Your task to perform on an android device: check battery use Image 0: 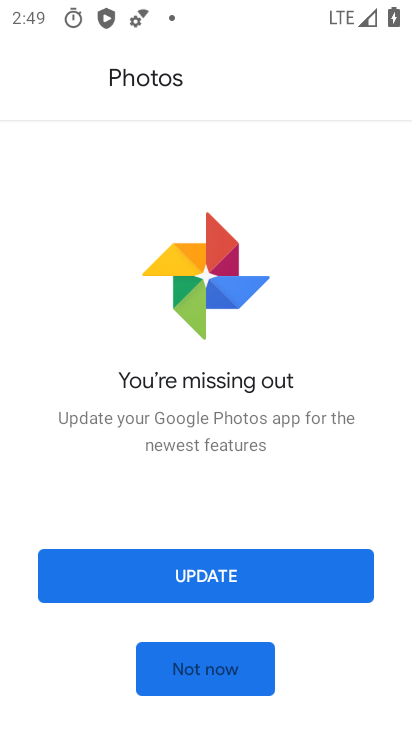
Step 0: press home button
Your task to perform on an android device: check battery use Image 1: 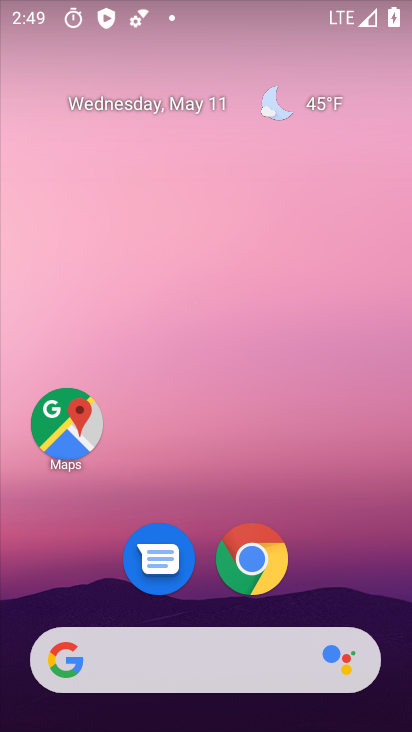
Step 1: drag from (315, 500) to (265, 117)
Your task to perform on an android device: check battery use Image 2: 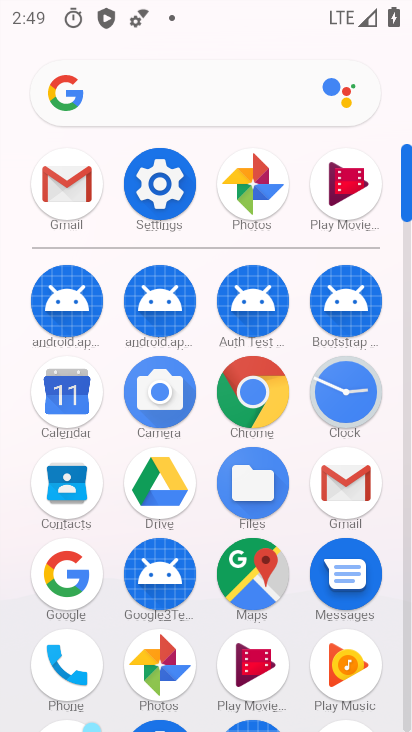
Step 2: click (160, 182)
Your task to perform on an android device: check battery use Image 3: 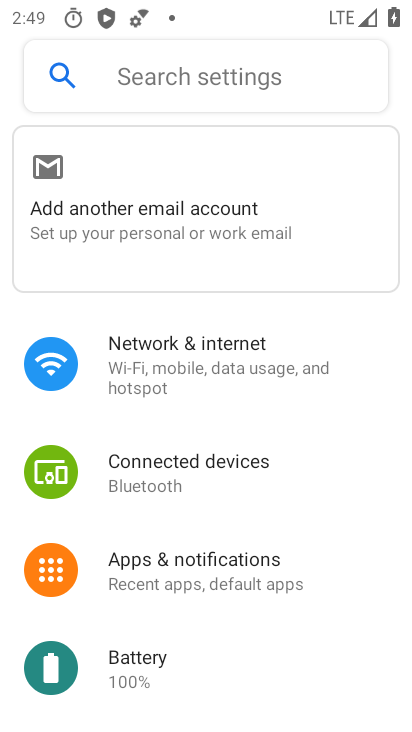
Step 3: drag from (228, 587) to (240, 336)
Your task to perform on an android device: check battery use Image 4: 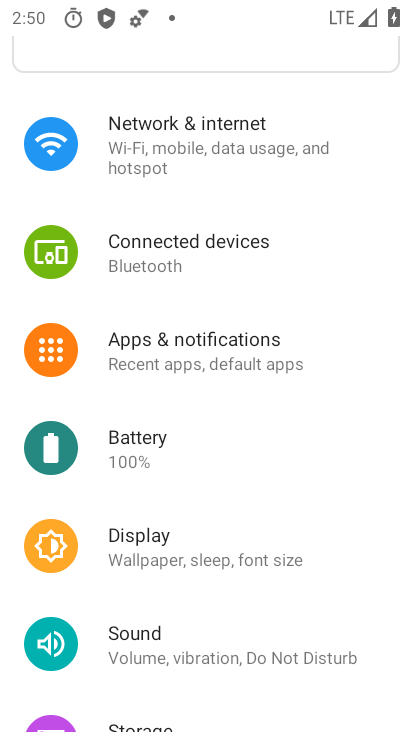
Step 4: click (202, 422)
Your task to perform on an android device: check battery use Image 5: 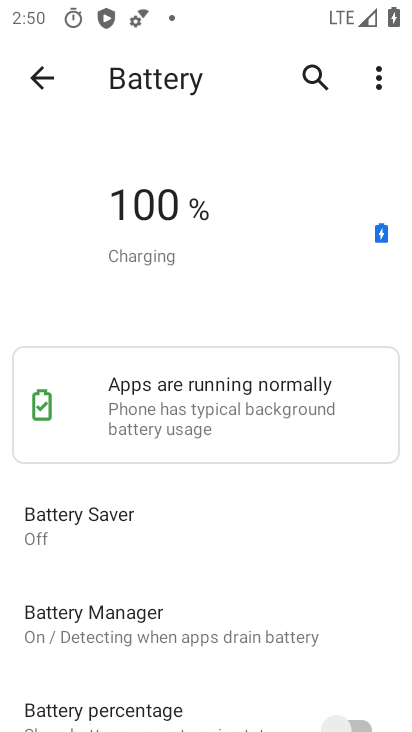
Step 5: click (370, 83)
Your task to perform on an android device: check battery use Image 6: 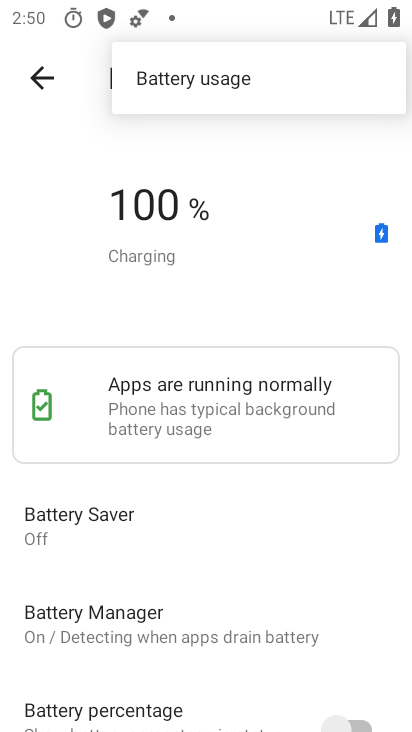
Step 6: click (249, 63)
Your task to perform on an android device: check battery use Image 7: 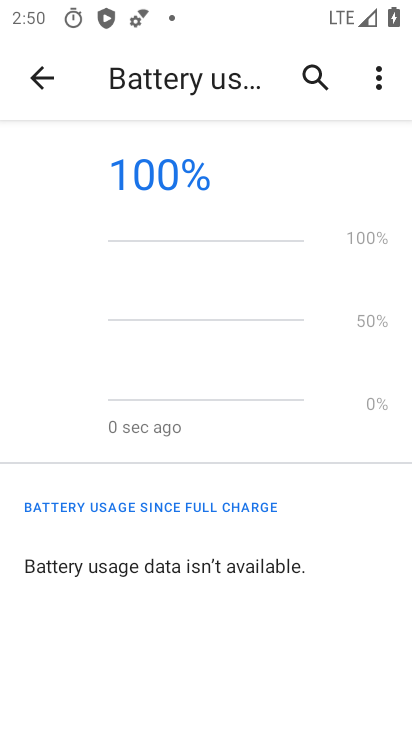
Step 7: task complete